Your task to perform on an android device: What's the weather today? Image 0: 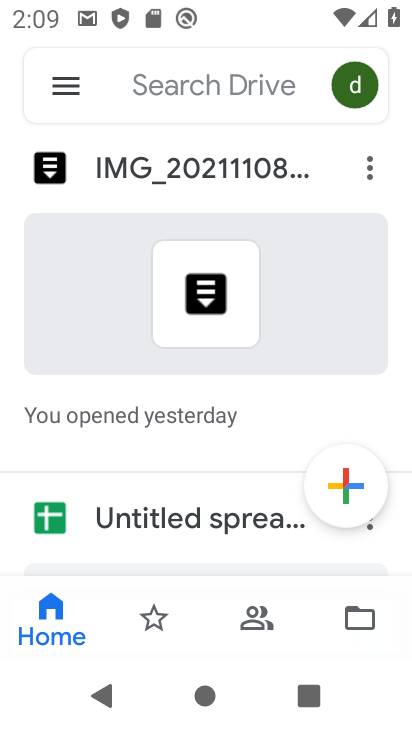
Step 0: press home button
Your task to perform on an android device: What's the weather today? Image 1: 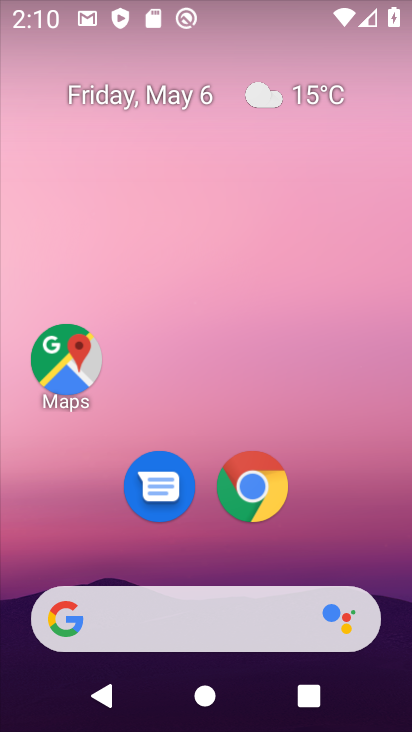
Step 1: click (306, 98)
Your task to perform on an android device: What's the weather today? Image 2: 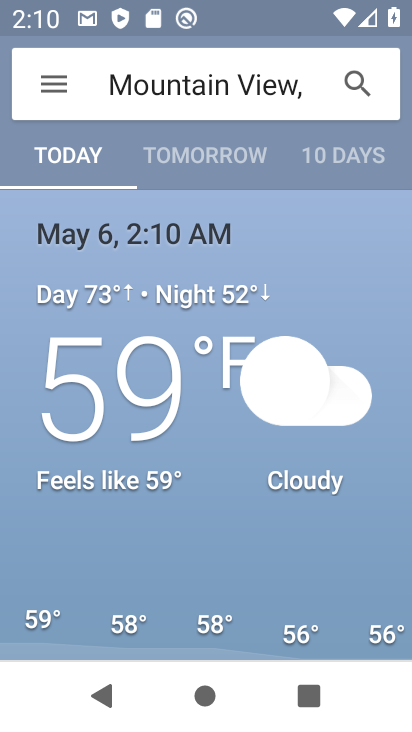
Step 2: task complete